Your task to perform on an android device: turn on bluetooth scan Image 0: 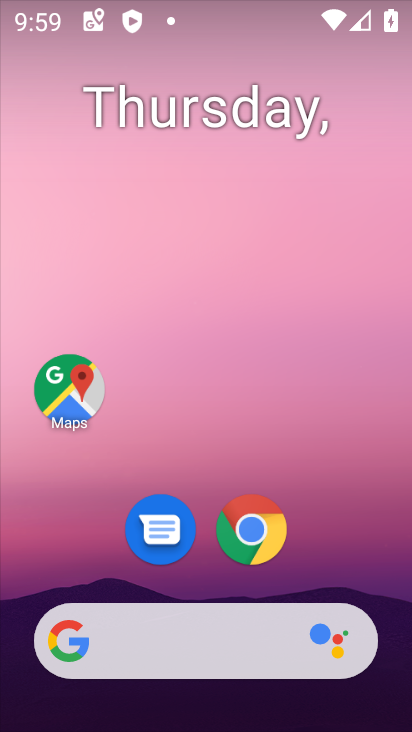
Step 0: drag from (321, 584) to (233, 3)
Your task to perform on an android device: turn on bluetooth scan Image 1: 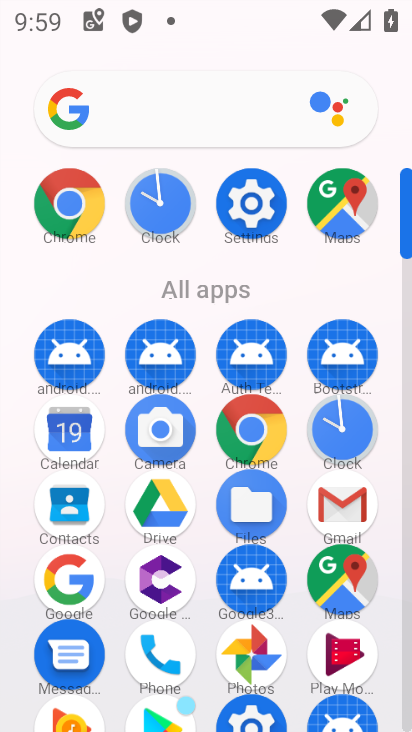
Step 1: click (244, 206)
Your task to perform on an android device: turn on bluetooth scan Image 2: 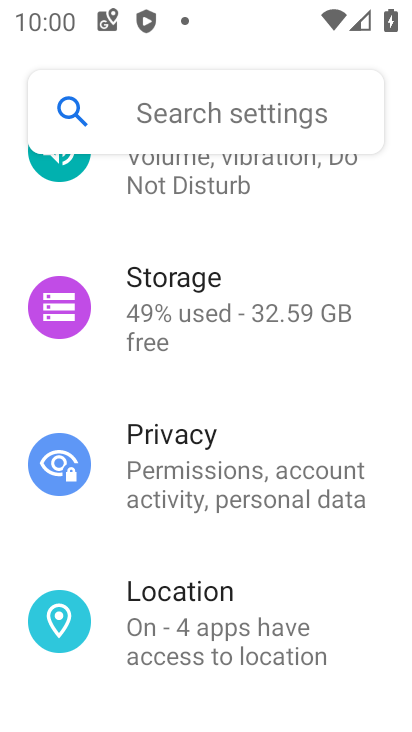
Step 2: click (173, 626)
Your task to perform on an android device: turn on bluetooth scan Image 3: 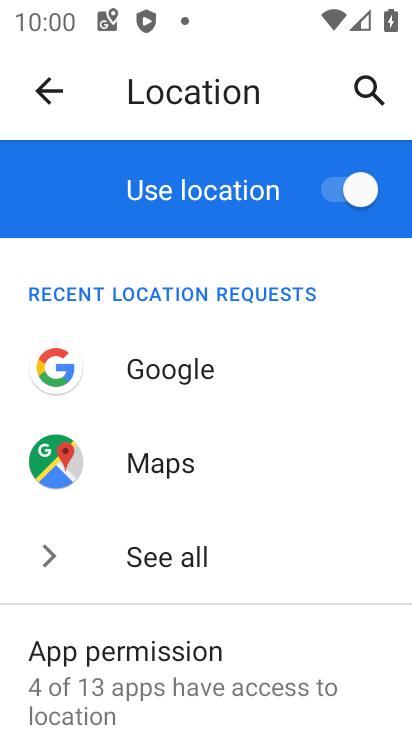
Step 3: drag from (199, 659) to (175, 283)
Your task to perform on an android device: turn on bluetooth scan Image 4: 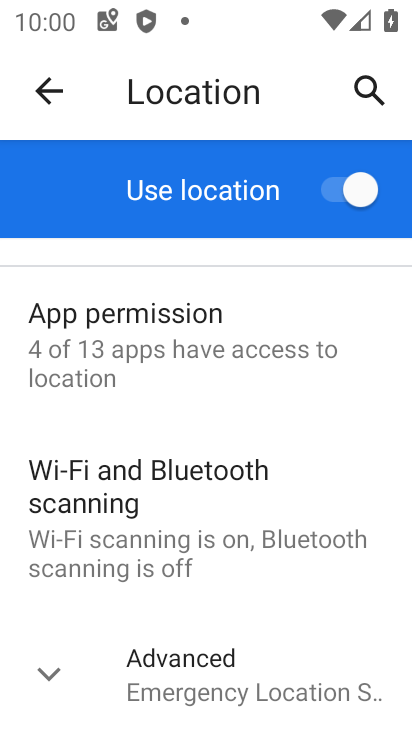
Step 4: click (193, 514)
Your task to perform on an android device: turn on bluetooth scan Image 5: 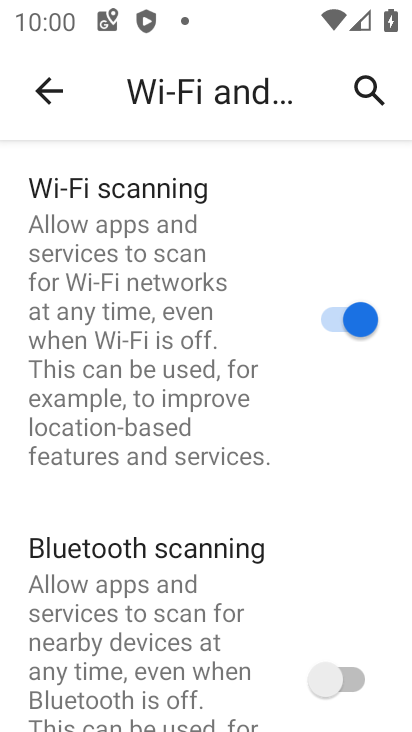
Step 5: click (318, 666)
Your task to perform on an android device: turn on bluetooth scan Image 6: 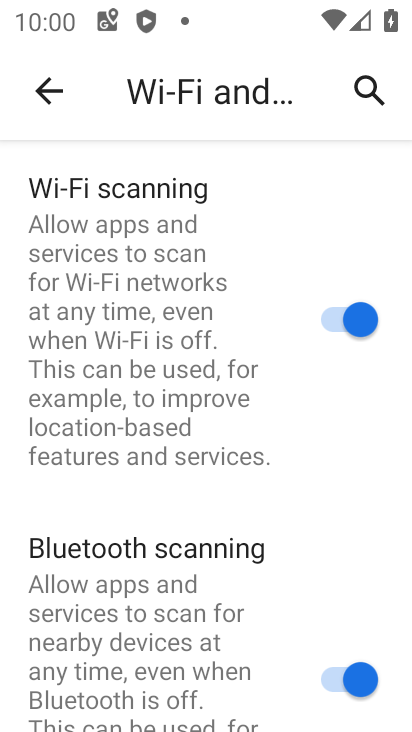
Step 6: task complete